Your task to perform on an android device: Is it going to rain this weekend? Image 0: 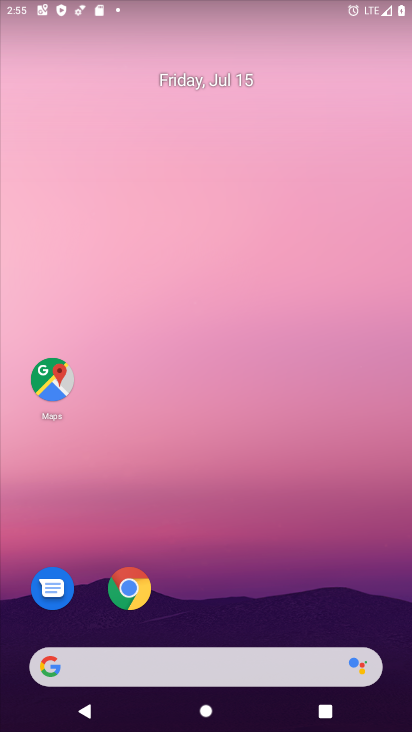
Step 0: drag from (154, 670) to (284, 12)
Your task to perform on an android device: Is it going to rain this weekend? Image 1: 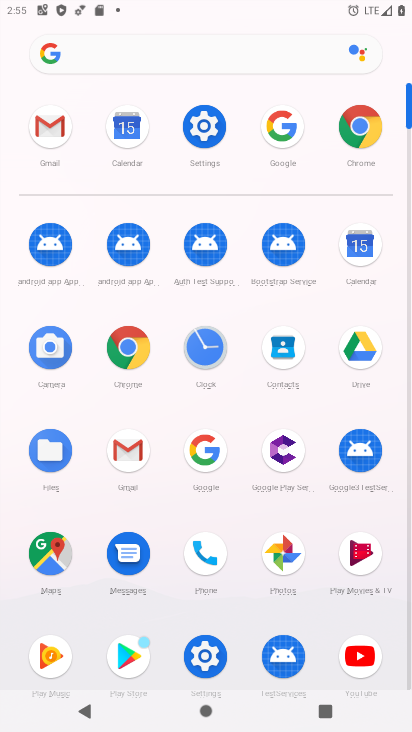
Step 1: click (278, 126)
Your task to perform on an android device: Is it going to rain this weekend? Image 2: 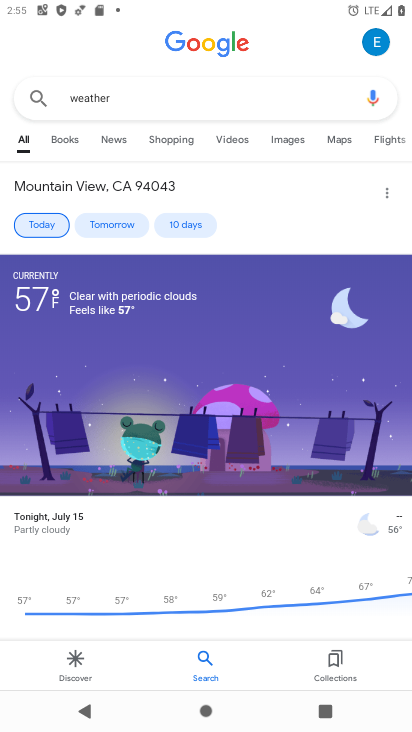
Step 2: click (309, 95)
Your task to perform on an android device: Is it going to rain this weekend? Image 3: 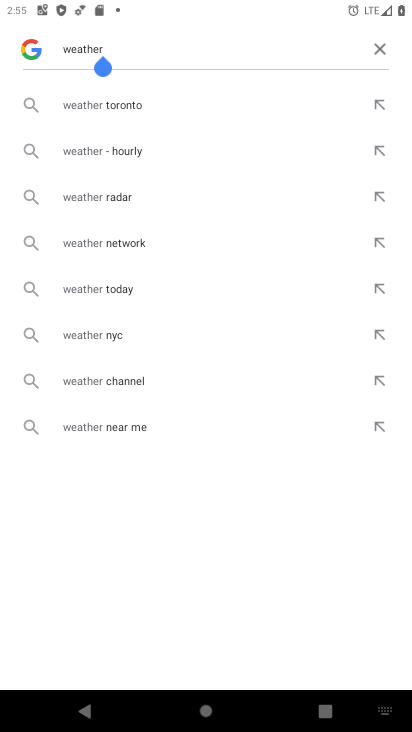
Step 3: click (379, 48)
Your task to perform on an android device: Is it going to rain this weekend? Image 4: 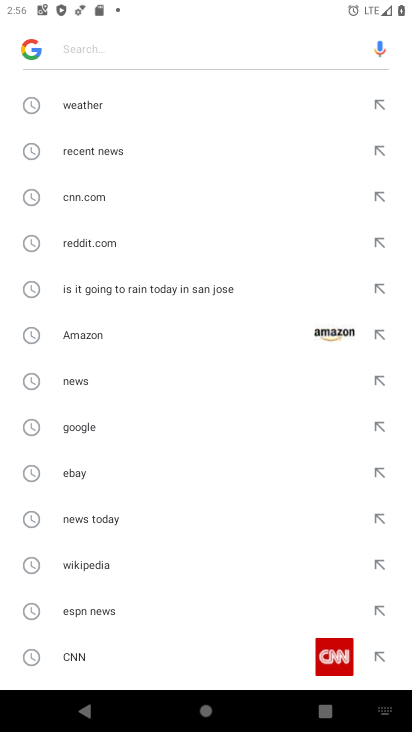
Step 4: type "Is it going to rain this weekend?"
Your task to perform on an android device: Is it going to rain this weekend? Image 5: 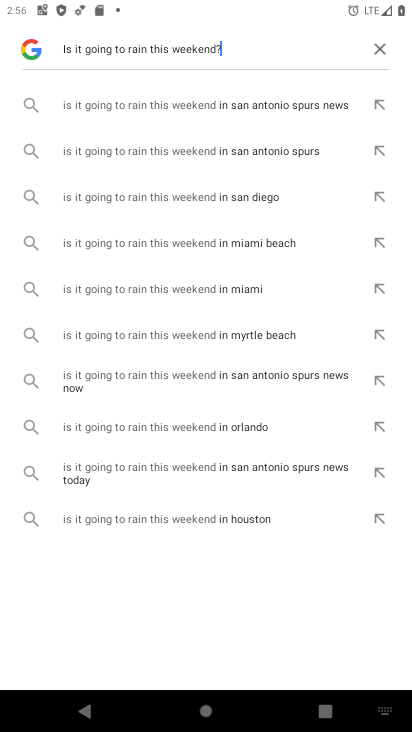
Step 5: click (198, 202)
Your task to perform on an android device: Is it going to rain this weekend? Image 6: 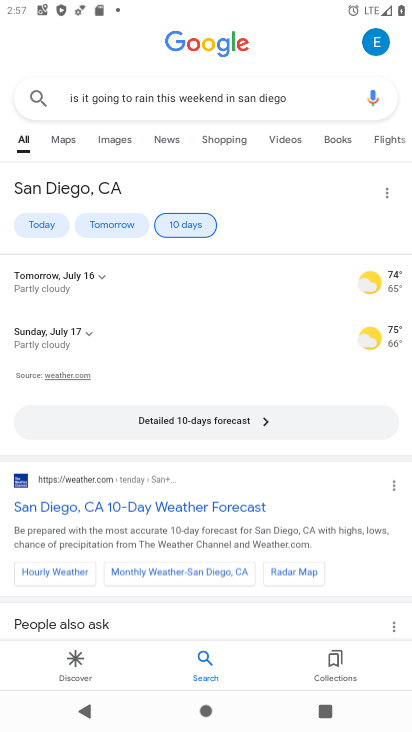
Step 6: task complete